Your task to perform on an android device: install app "Life360: Find Family & Friends" Image 0: 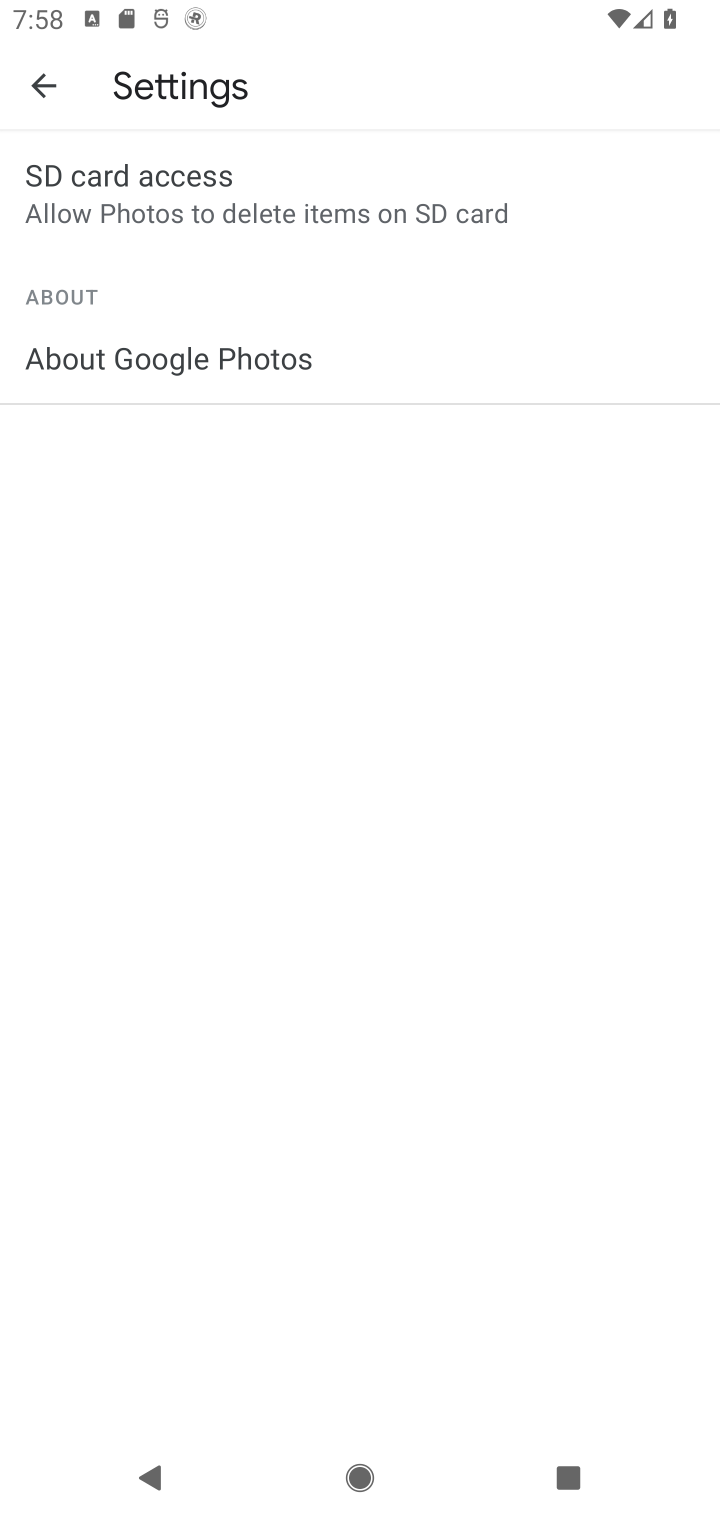
Step 0: press home button
Your task to perform on an android device: install app "Life360: Find Family & Friends" Image 1: 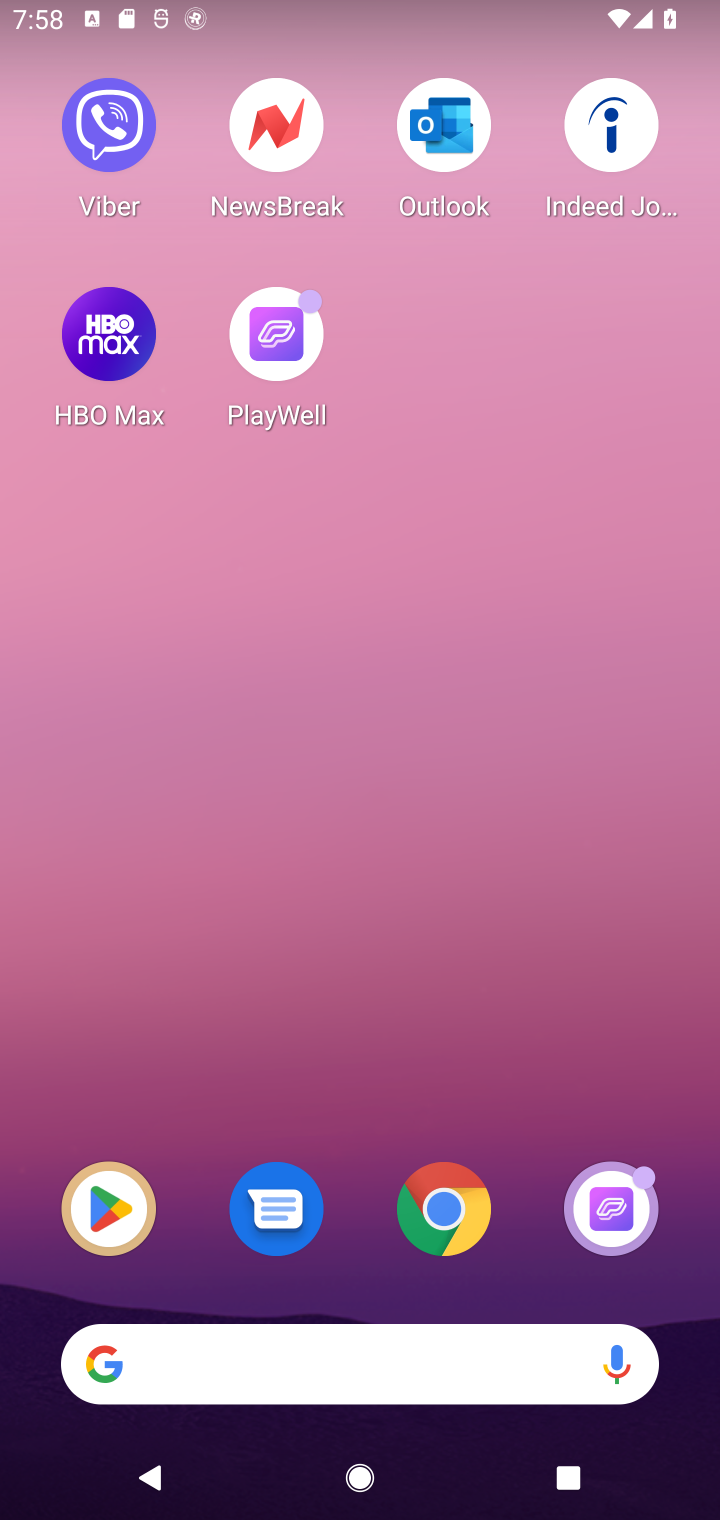
Step 1: click (122, 1219)
Your task to perform on an android device: install app "Life360: Find Family & Friends" Image 2: 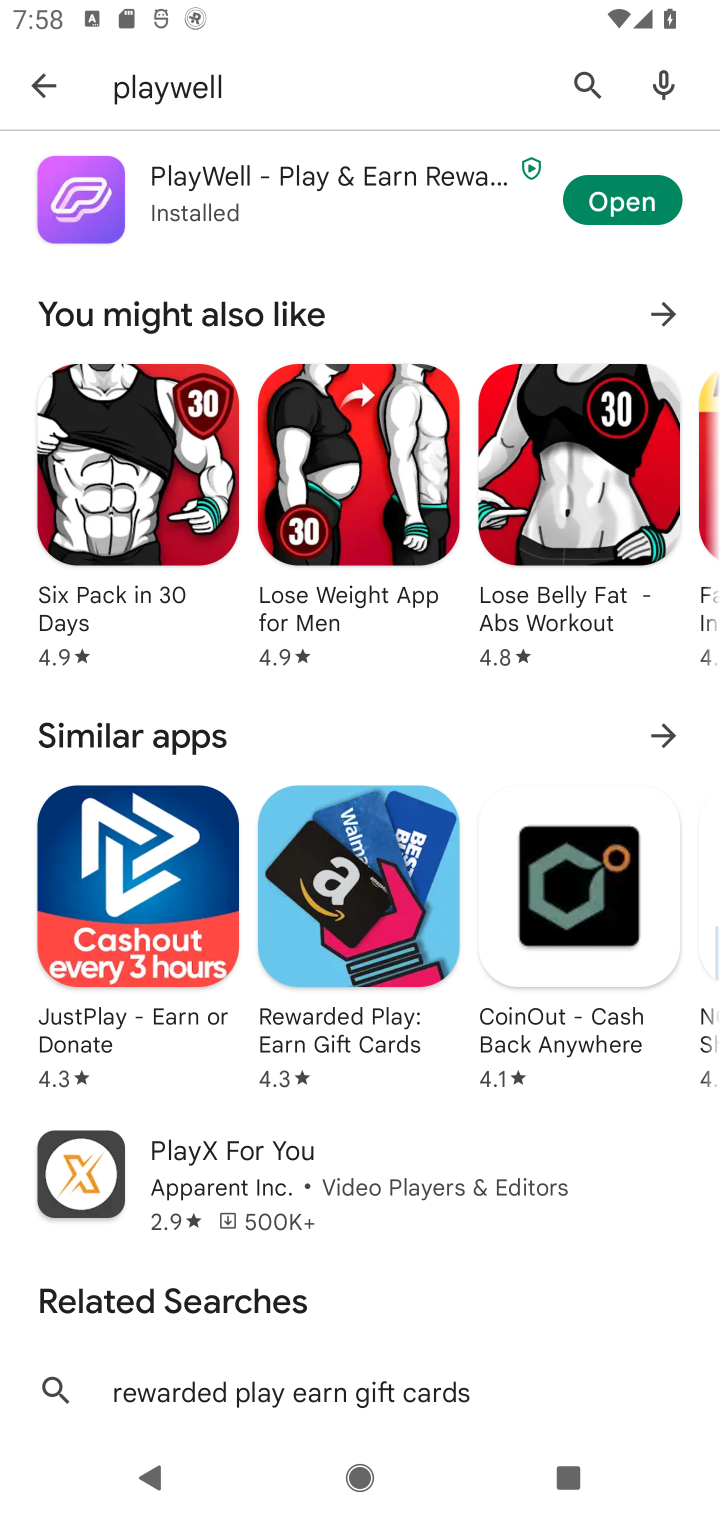
Step 2: click (592, 85)
Your task to perform on an android device: install app "Life360: Find Family & Friends" Image 3: 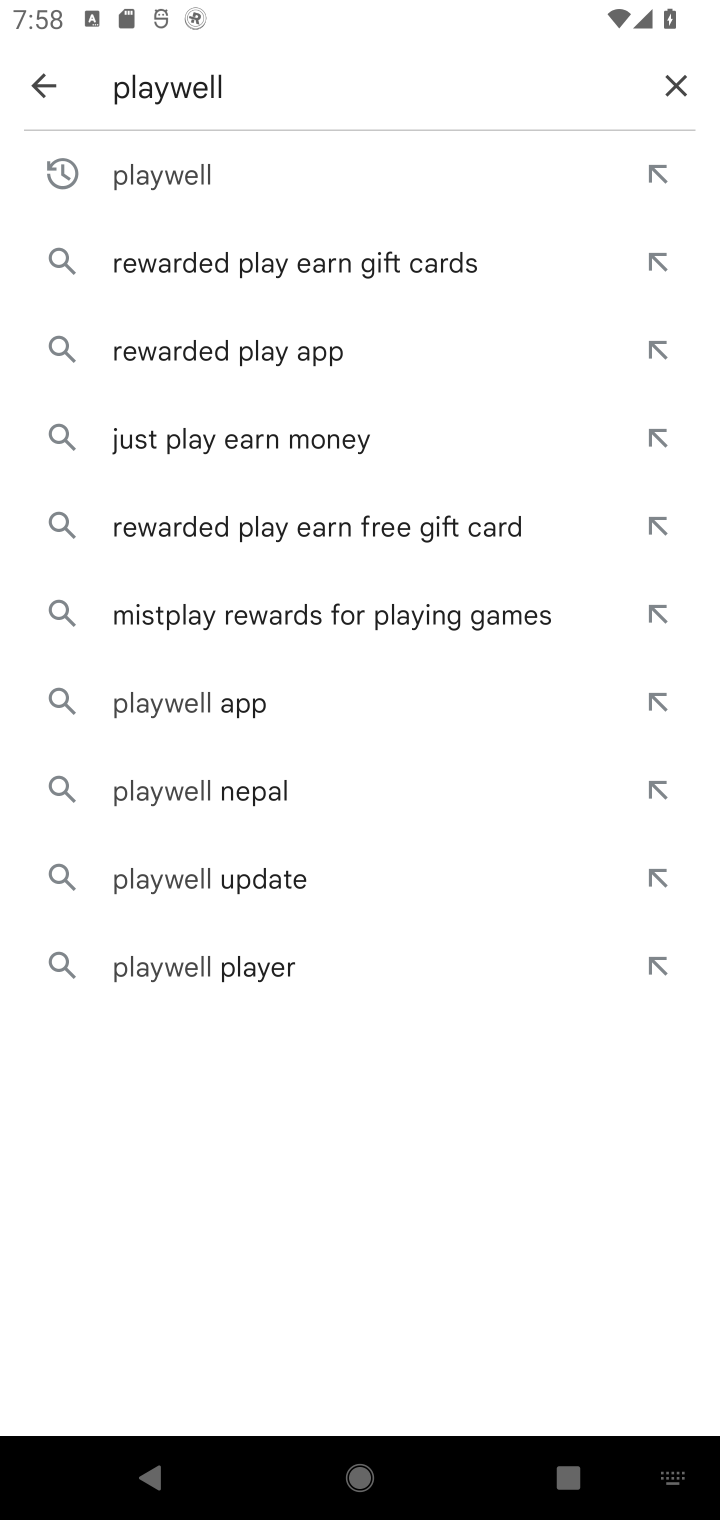
Step 3: click (665, 77)
Your task to perform on an android device: install app "Life360: Find Family & Friends" Image 4: 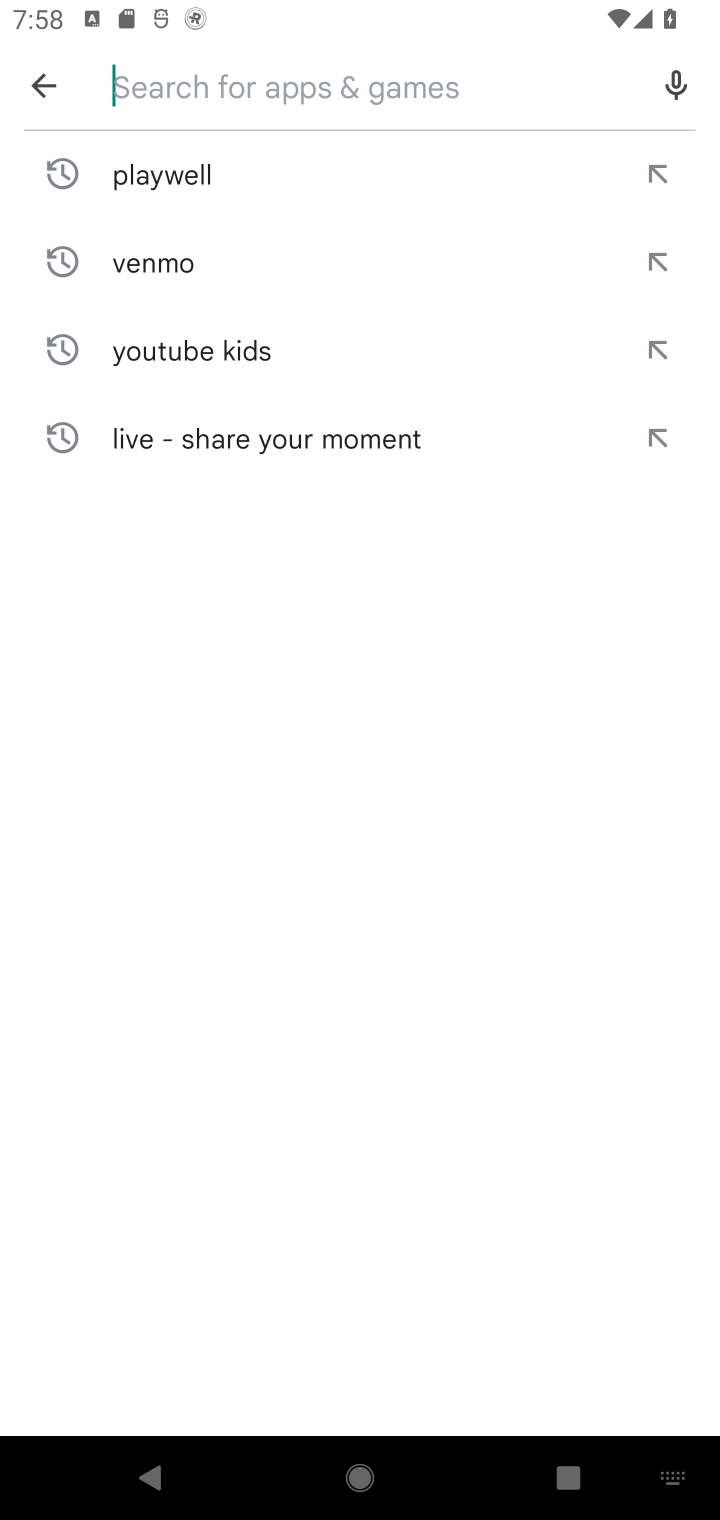
Step 4: click (295, 79)
Your task to perform on an android device: install app "Life360: Find Family & Friends" Image 5: 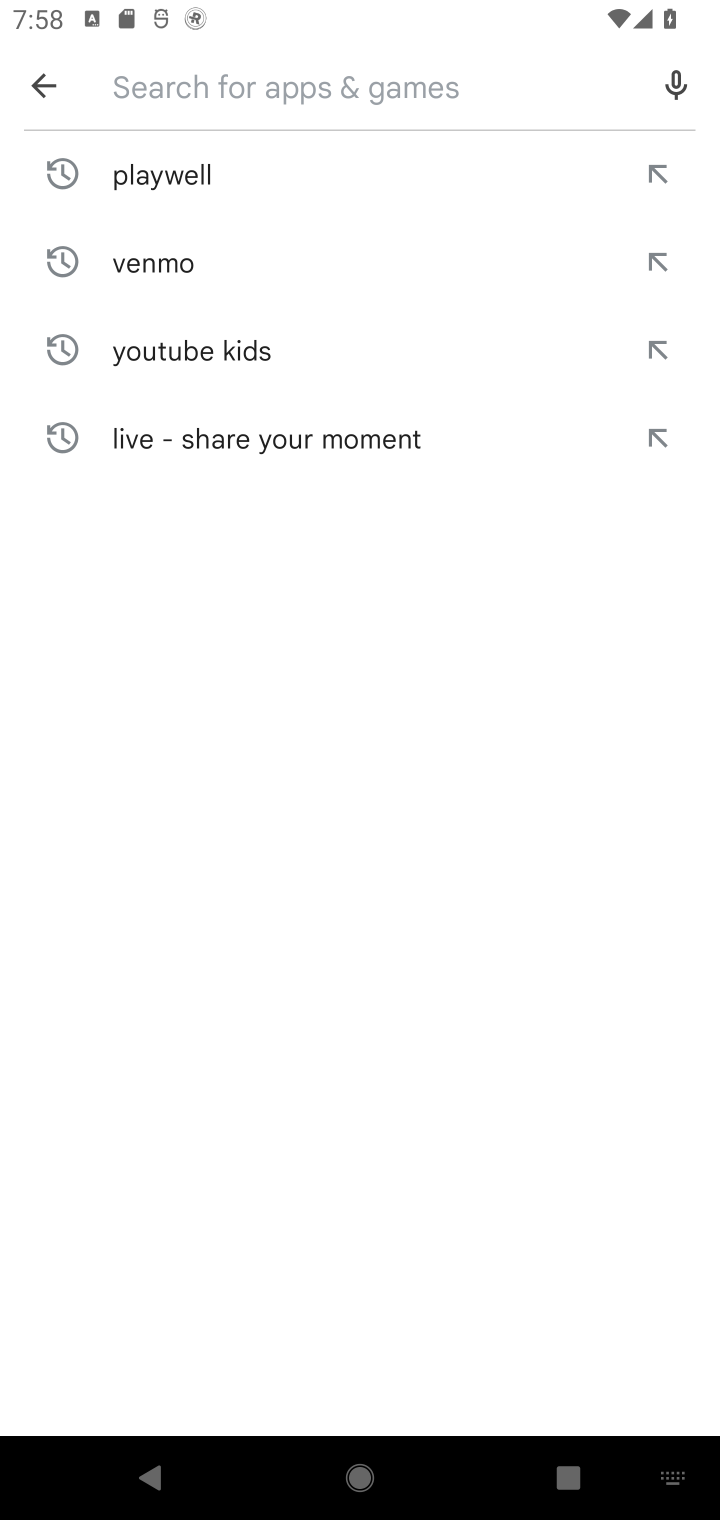
Step 5: type "Life360: Find Family & Friends"
Your task to perform on an android device: install app "Life360: Find Family & Friends" Image 6: 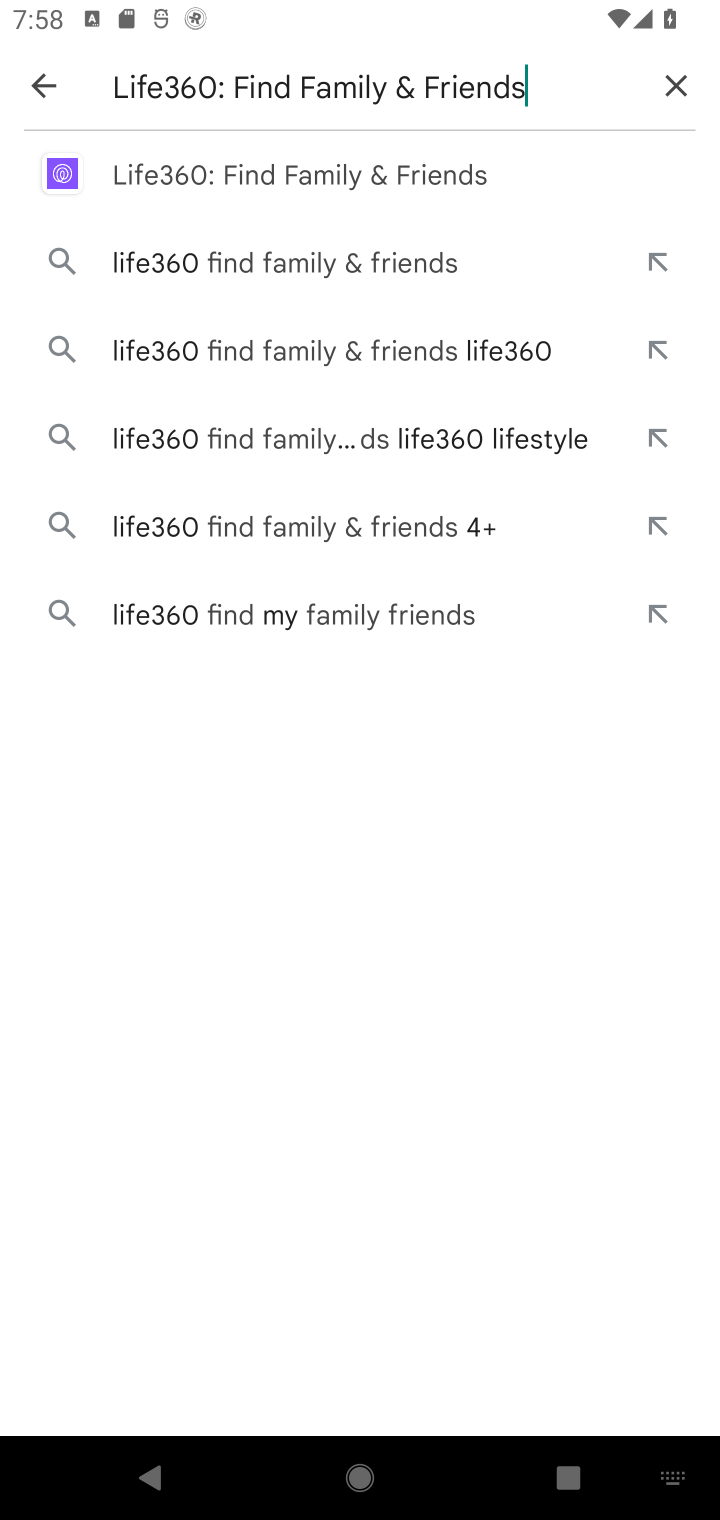
Step 6: click (259, 176)
Your task to perform on an android device: install app "Life360: Find Family & Friends" Image 7: 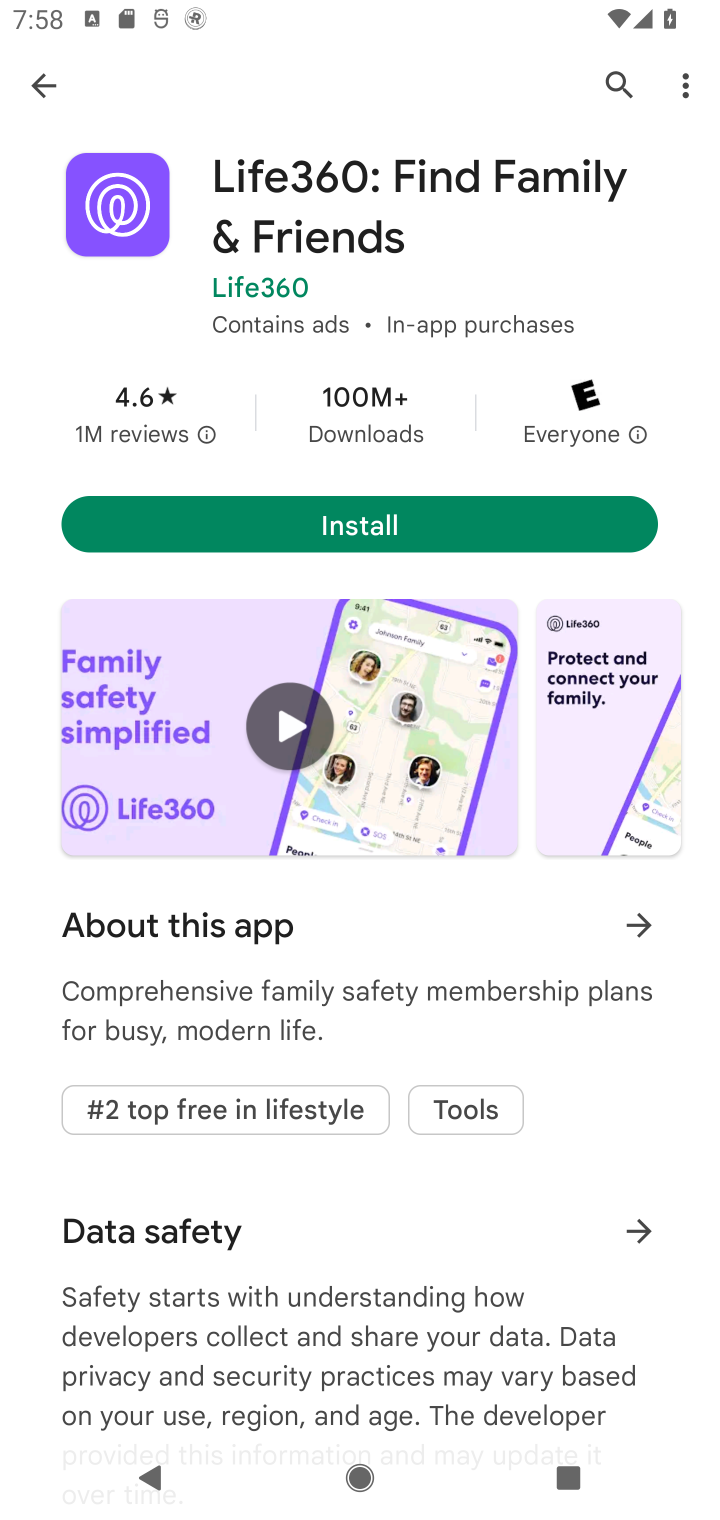
Step 7: click (267, 527)
Your task to perform on an android device: install app "Life360: Find Family & Friends" Image 8: 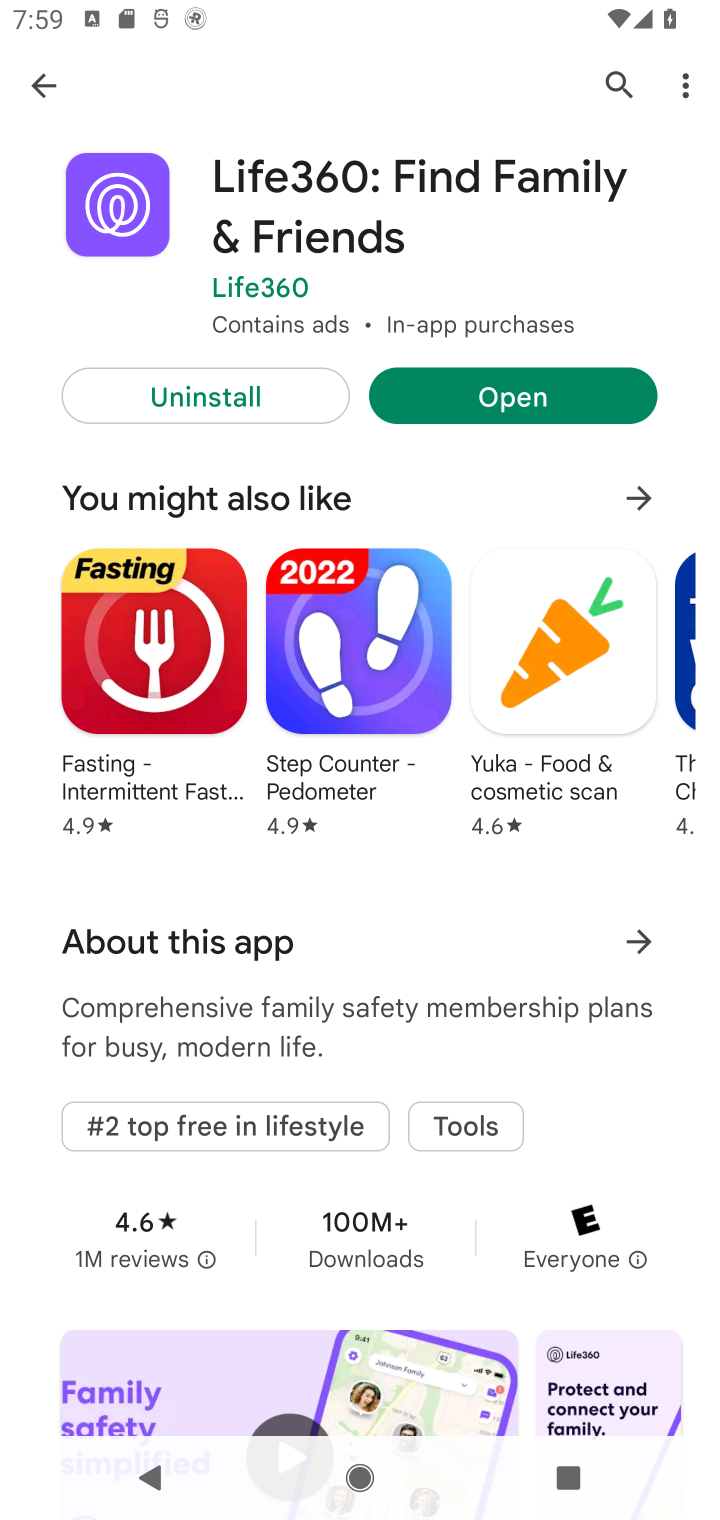
Step 8: task complete